Your task to perform on an android device: Open CNN.com Image 0: 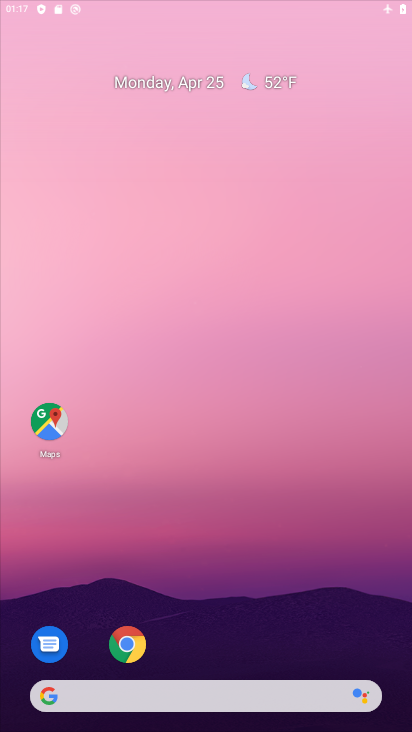
Step 0: press home button
Your task to perform on an android device: Open CNN.com Image 1: 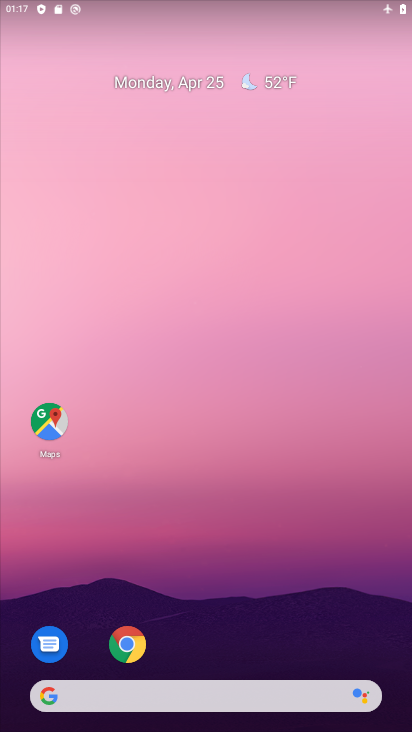
Step 1: click (138, 645)
Your task to perform on an android device: Open CNN.com Image 2: 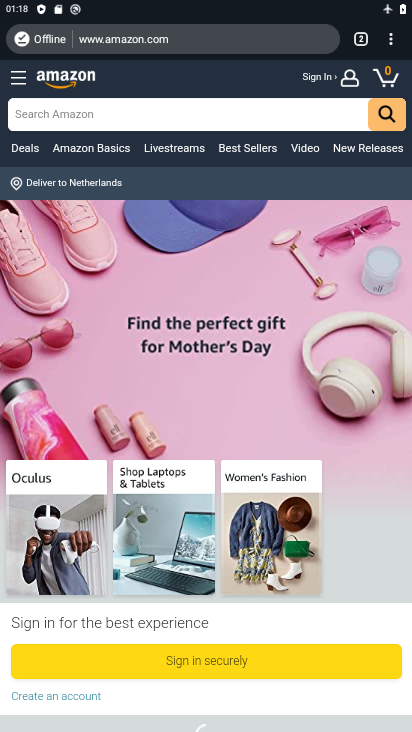
Step 2: click (254, 41)
Your task to perform on an android device: Open CNN.com Image 3: 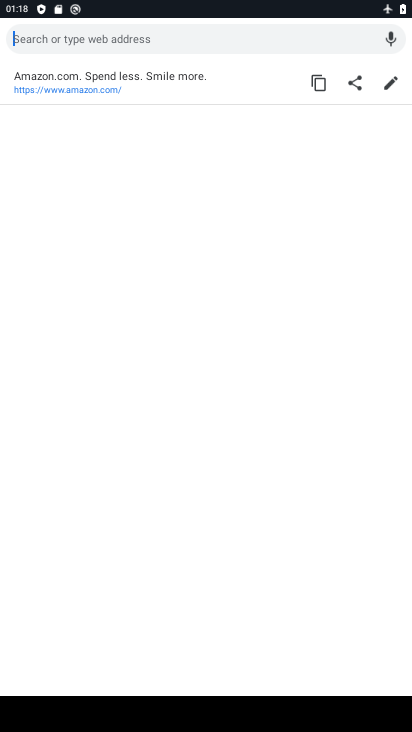
Step 3: type "cnn.com"
Your task to perform on an android device: Open CNN.com Image 4: 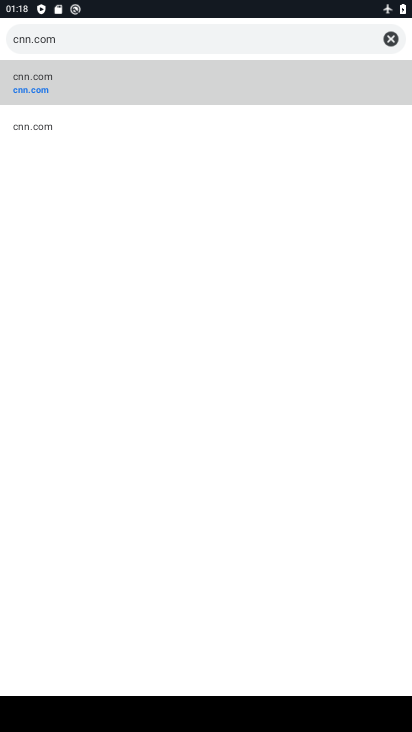
Step 4: click (55, 86)
Your task to perform on an android device: Open CNN.com Image 5: 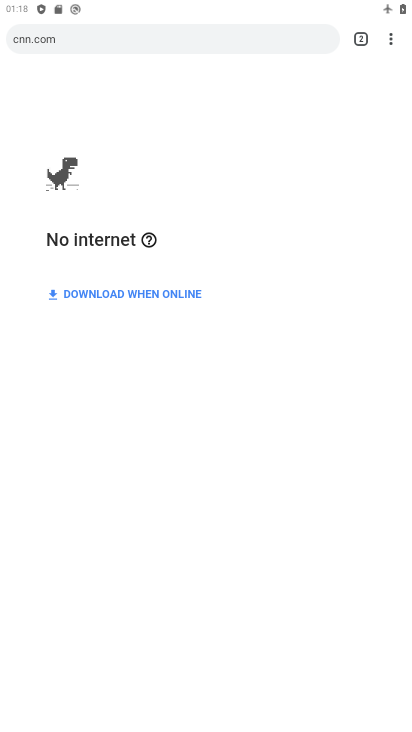
Step 5: task complete